Your task to perform on an android device: Go to Reddit.com Image 0: 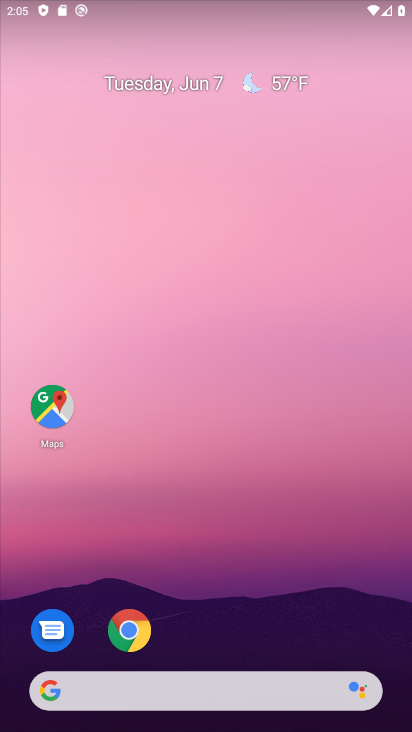
Step 0: click (111, 627)
Your task to perform on an android device: Go to Reddit.com Image 1: 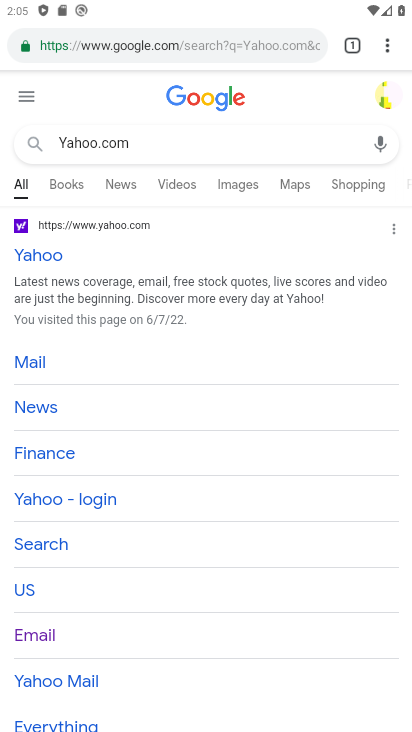
Step 1: click (319, 41)
Your task to perform on an android device: Go to Reddit.com Image 2: 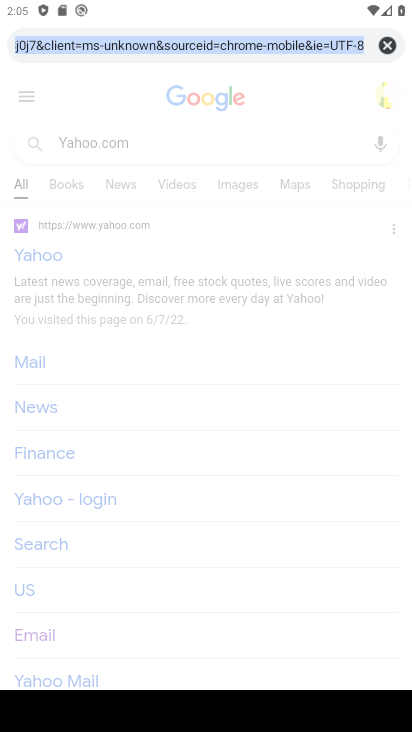
Step 2: click (391, 38)
Your task to perform on an android device: Go to Reddit.com Image 3: 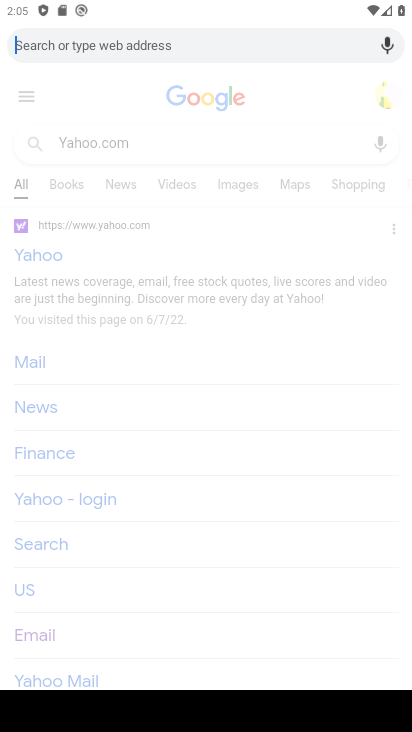
Step 3: type "Reddit.com"
Your task to perform on an android device: Go to Reddit.com Image 4: 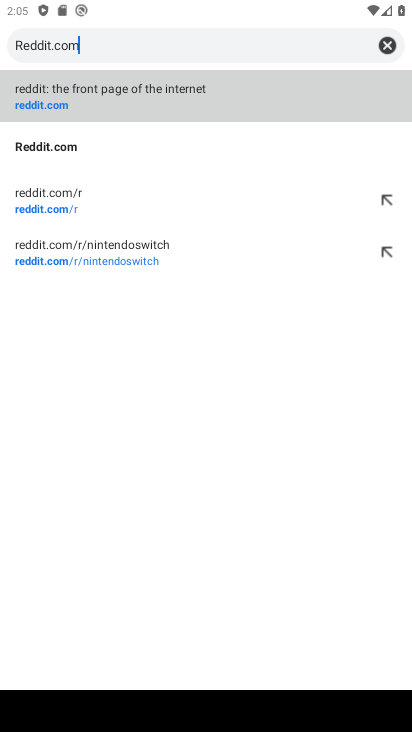
Step 4: click (62, 142)
Your task to perform on an android device: Go to Reddit.com Image 5: 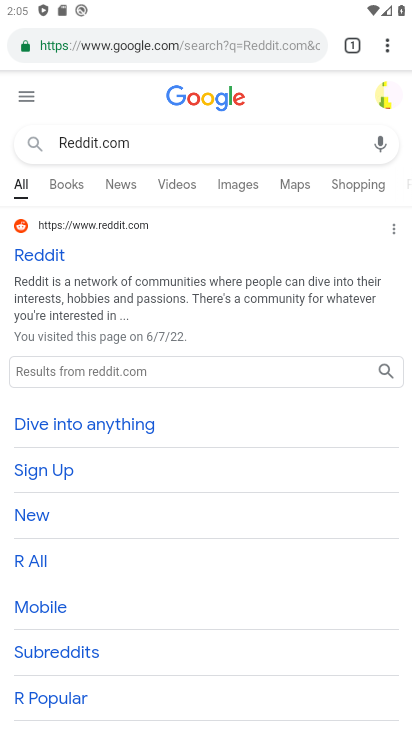
Step 5: task complete